Your task to perform on an android device: Open Youtube and go to "Your channel" Image 0: 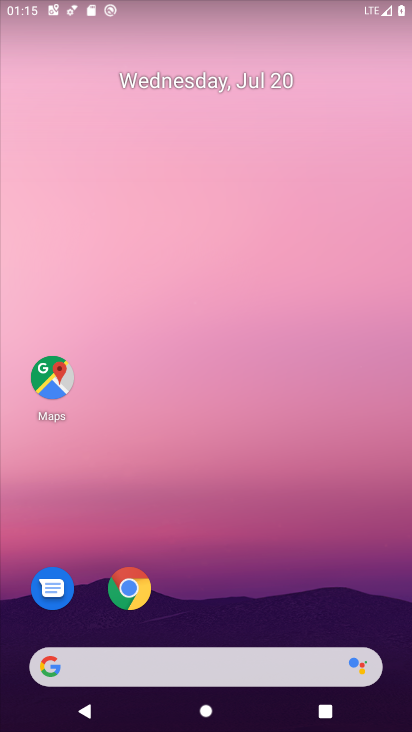
Step 0: drag from (187, 657) to (244, 218)
Your task to perform on an android device: Open Youtube and go to "Your channel" Image 1: 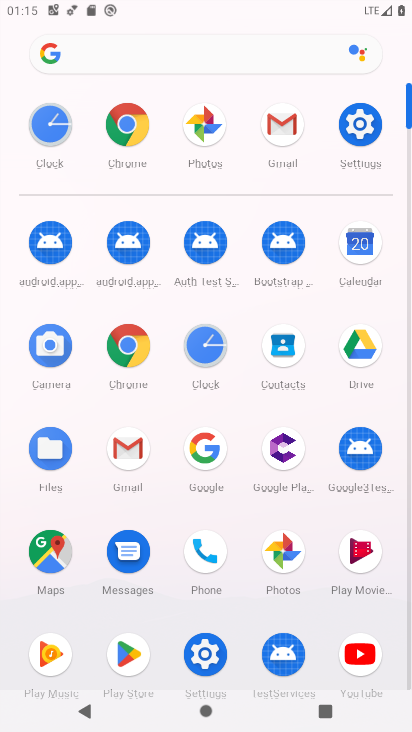
Step 1: click (358, 657)
Your task to perform on an android device: Open Youtube and go to "Your channel" Image 2: 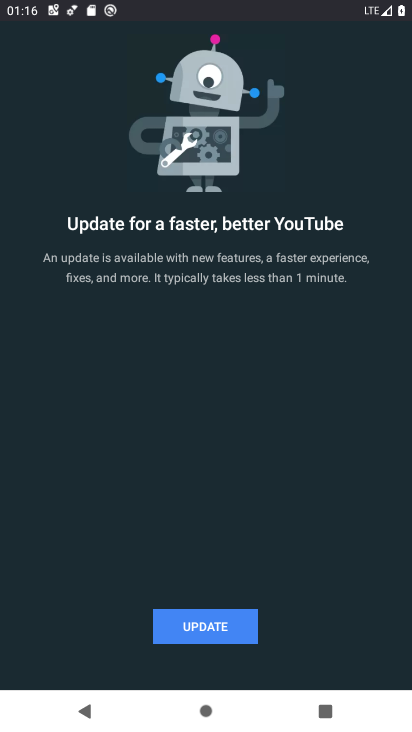
Step 2: task complete